Your task to perform on an android device: Turn on the flashlight Image 0: 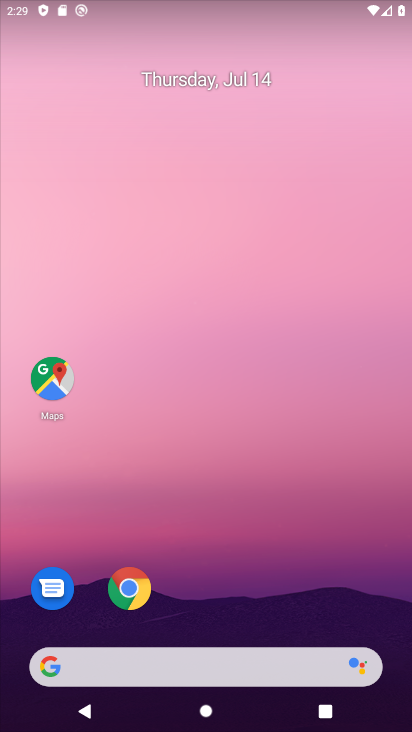
Step 0: click (175, 118)
Your task to perform on an android device: Turn on the flashlight Image 1: 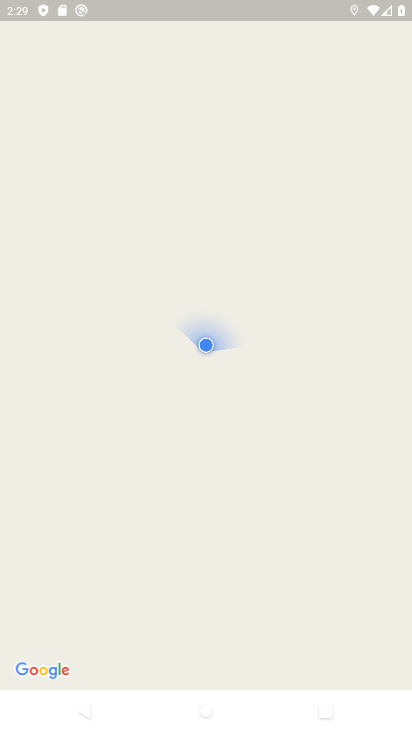
Step 1: task complete